Your task to perform on an android device: allow cookies in the chrome app Image 0: 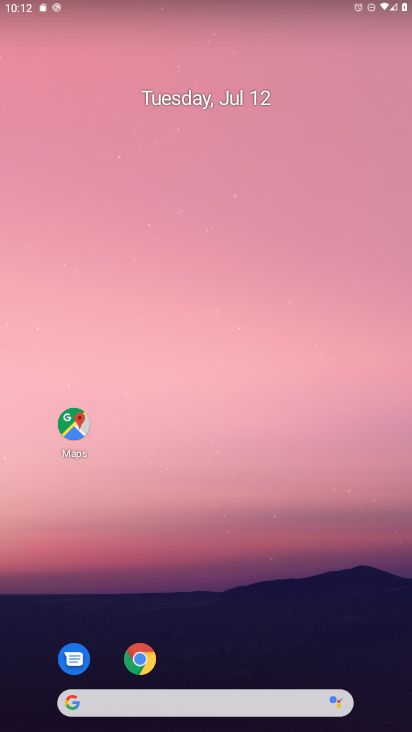
Step 0: click (141, 662)
Your task to perform on an android device: allow cookies in the chrome app Image 1: 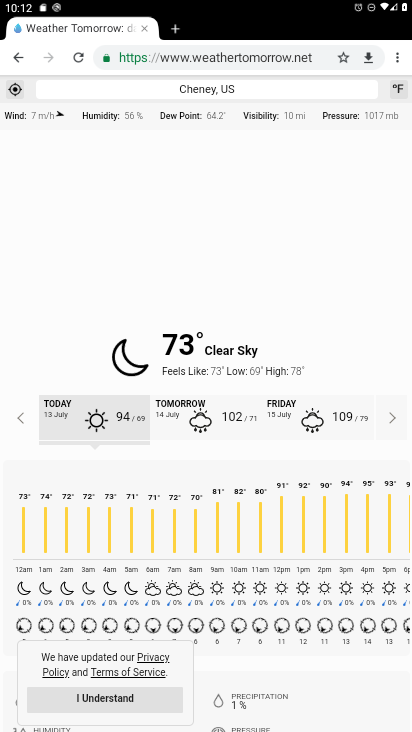
Step 1: drag from (397, 53) to (296, 383)
Your task to perform on an android device: allow cookies in the chrome app Image 2: 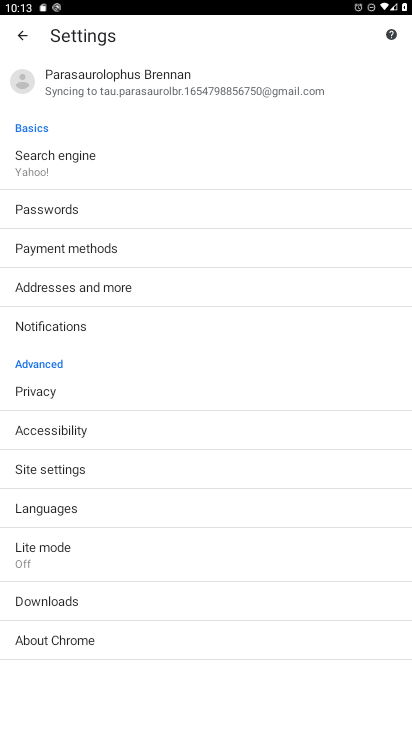
Step 2: click (58, 469)
Your task to perform on an android device: allow cookies in the chrome app Image 3: 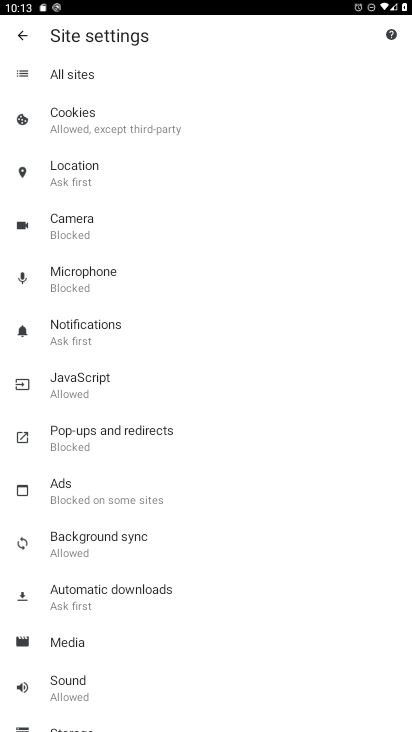
Step 3: click (117, 121)
Your task to perform on an android device: allow cookies in the chrome app Image 4: 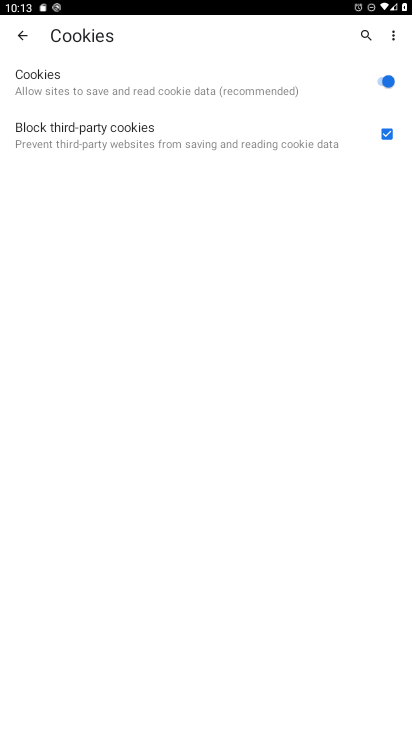
Step 4: task complete